Your task to perform on an android device: When is my next appointment? Image 0: 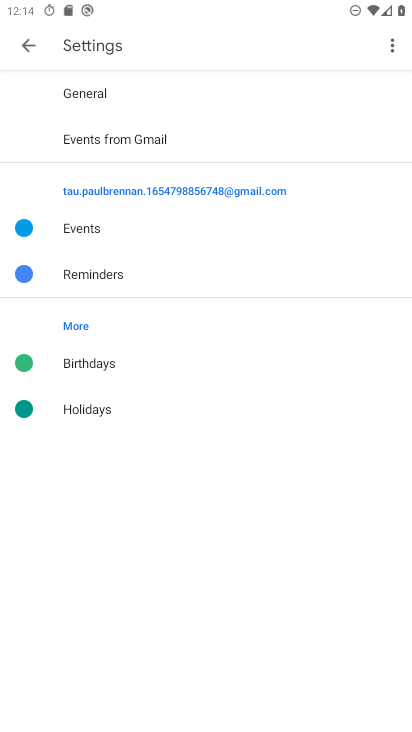
Step 0: press home button
Your task to perform on an android device: When is my next appointment? Image 1: 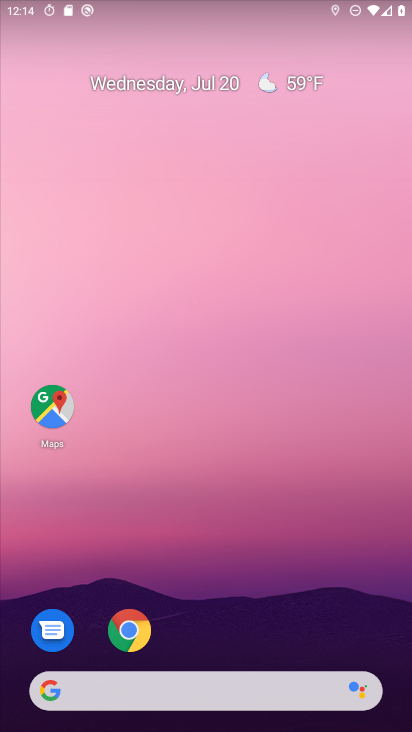
Step 1: drag from (233, 696) to (190, 28)
Your task to perform on an android device: When is my next appointment? Image 2: 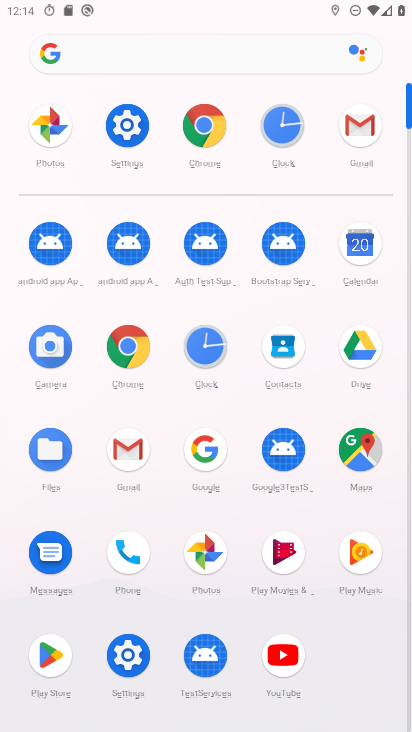
Step 2: click (370, 243)
Your task to perform on an android device: When is my next appointment? Image 3: 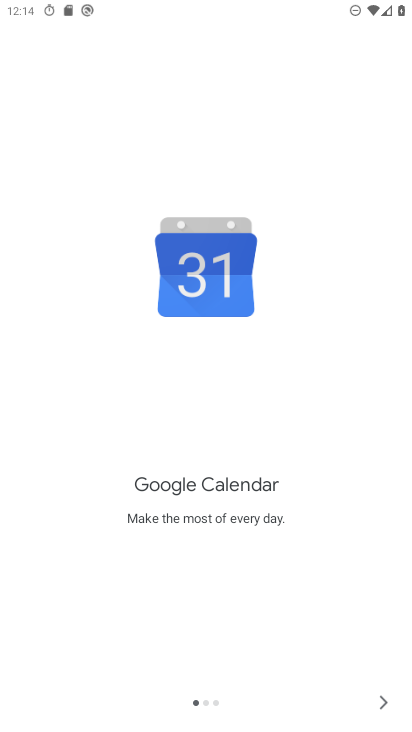
Step 3: click (375, 704)
Your task to perform on an android device: When is my next appointment? Image 4: 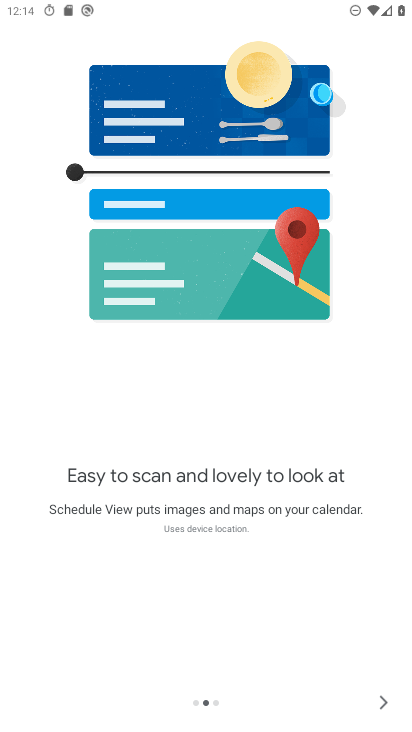
Step 4: click (375, 704)
Your task to perform on an android device: When is my next appointment? Image 5: 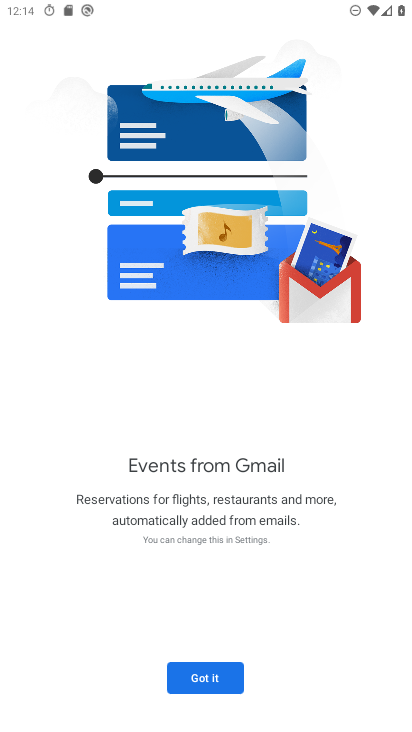
Step 5: click (202, 668)
Your task to perform on an android device: When is my next appointment? Image 6: 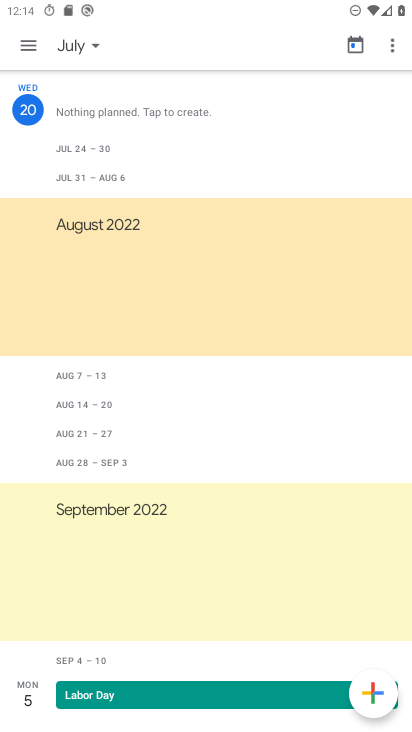
Step 6: click (92, 48)
Your task to perform on an android device: When is my next appointment? Image 7: 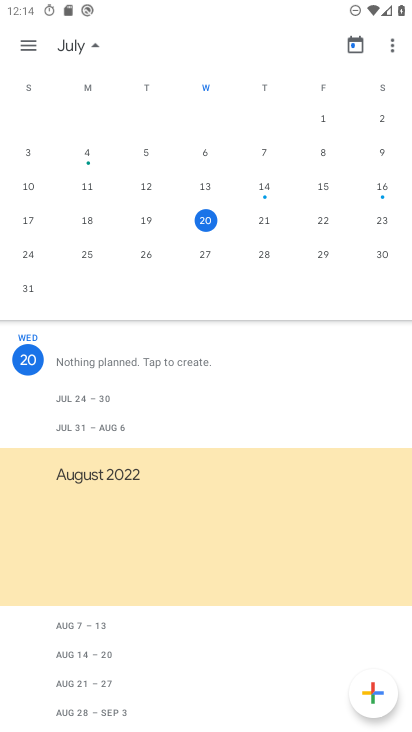
Step 7: click (258, 221)
Your task to perform on an android device: When is my next appointment? Image 8: 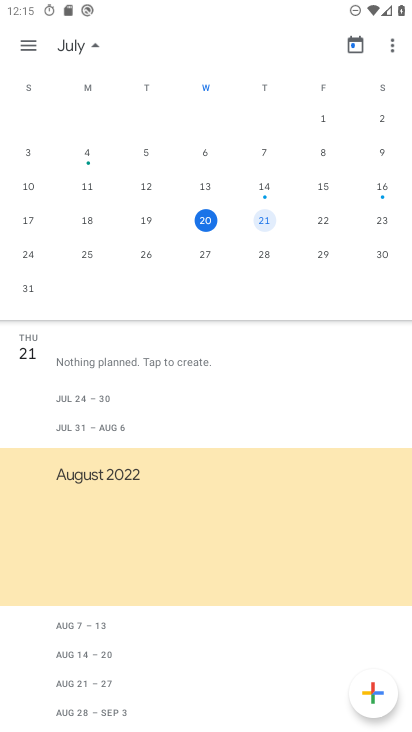
Step 8: task complete